Your task to perform on an android device: Go to ESPN.com Image 0: 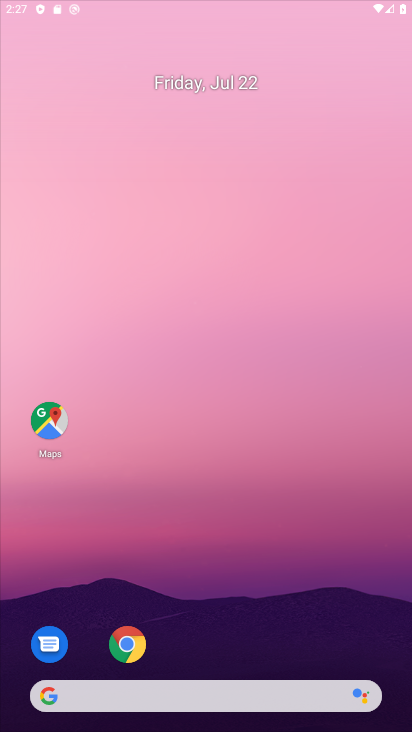
Step 0: press home button
Your task to perform on an android device: Go to ESPN.com Image 1: 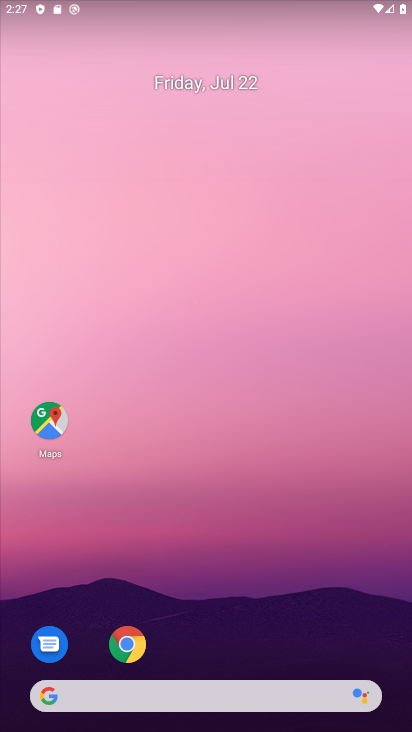
Step 1: click (47, 691)
Your task to perform on an android device: Go to ESPN.com Image 2: 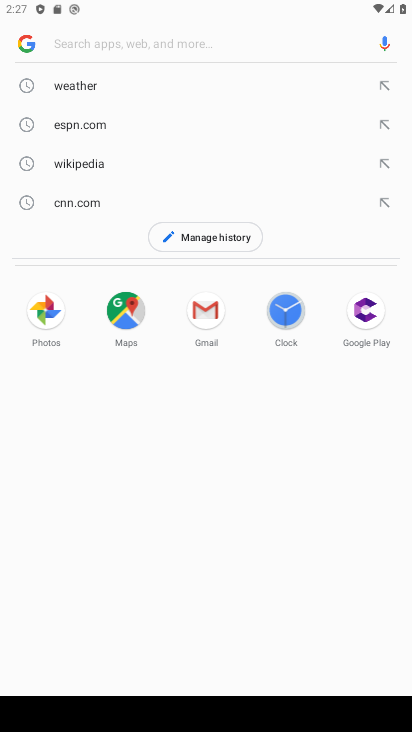
Step 2: type " ESPN.com"
Your task to perform on an android device: Go to ESPN.com Image 3: 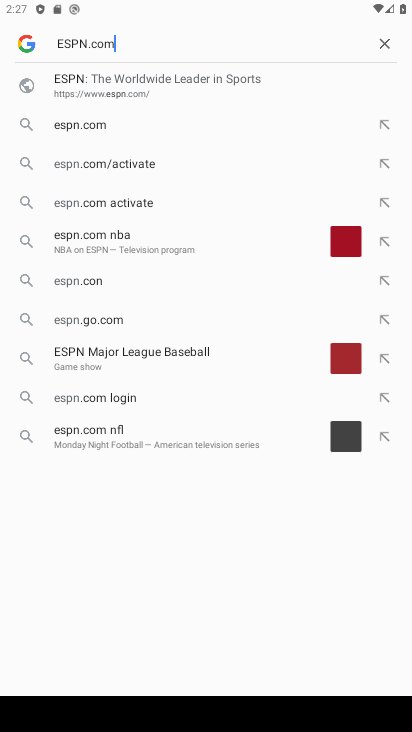
Step 3: press enter
Your task to perform on an android device: Go to ESPN.com Image 4: 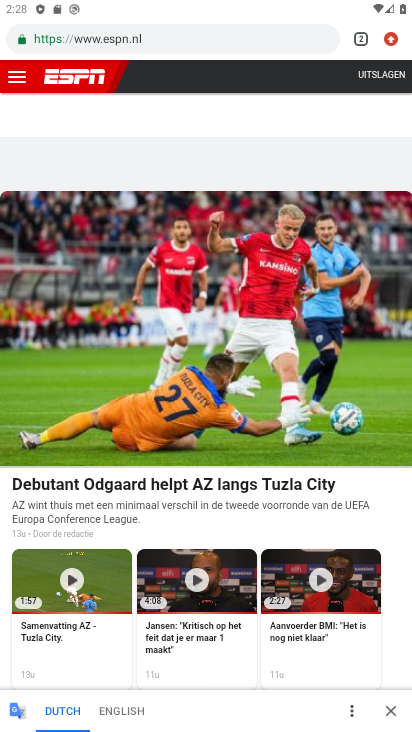
Step 4: task complete